Your task to perform on an android device: turn pop-ups off in chrome Image 0: 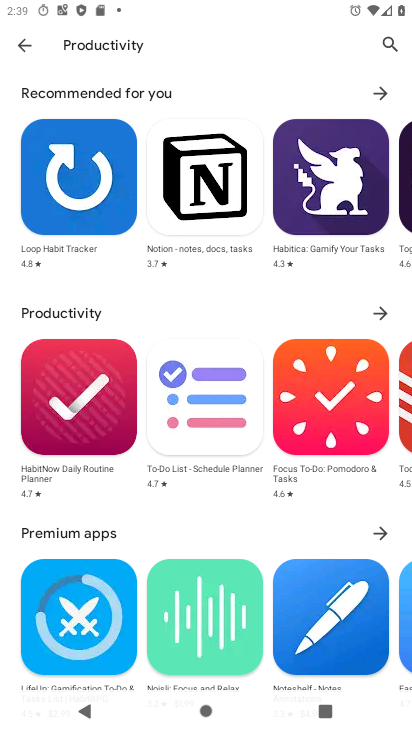
Step 0: press home button
Your task to perform on an android device: turn pop-ups off in chrome Image 1: 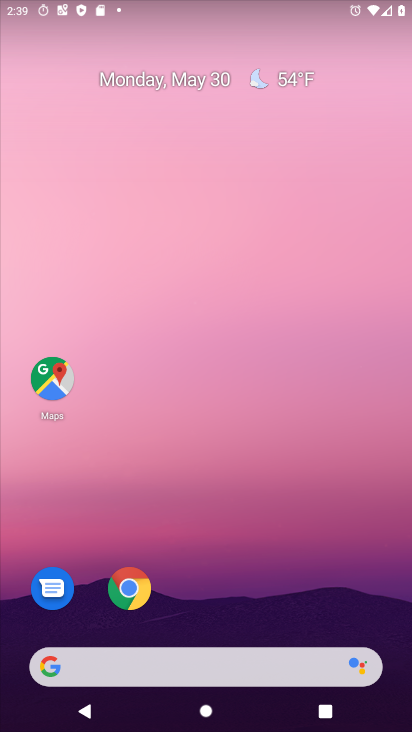
Step 1: click (130, 588)
Your task to perform on an android device: turn pop-ups off in chrome Image 2: 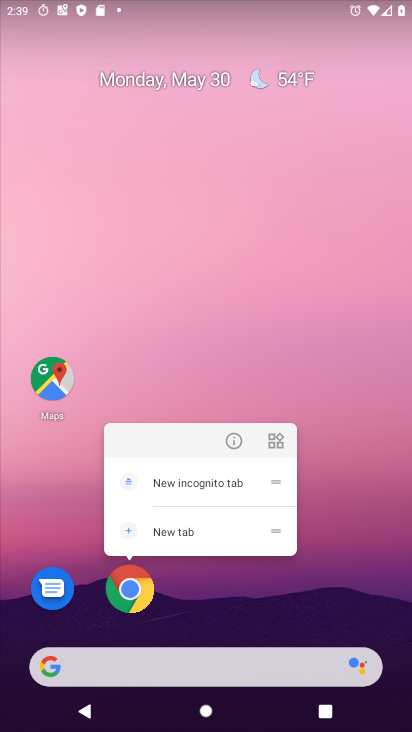
Step 2: click (130, 588)
Your task to perform on an android device: turn pop-ups off in chrome Image 3: 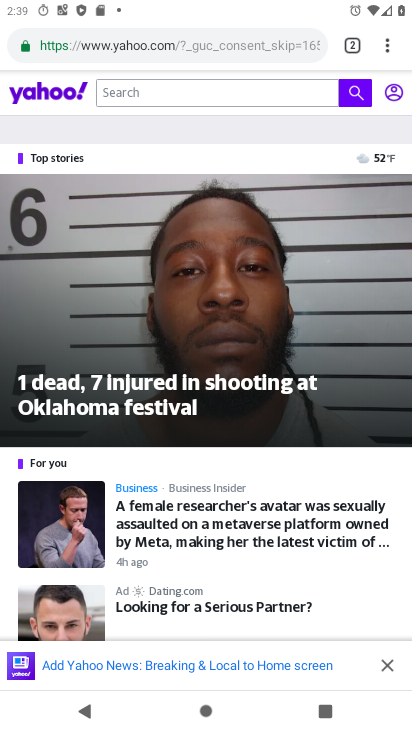
Step 3: click (390, 49)
Your task to perform on an android device: turn pop-ups off in chrome Image 4: 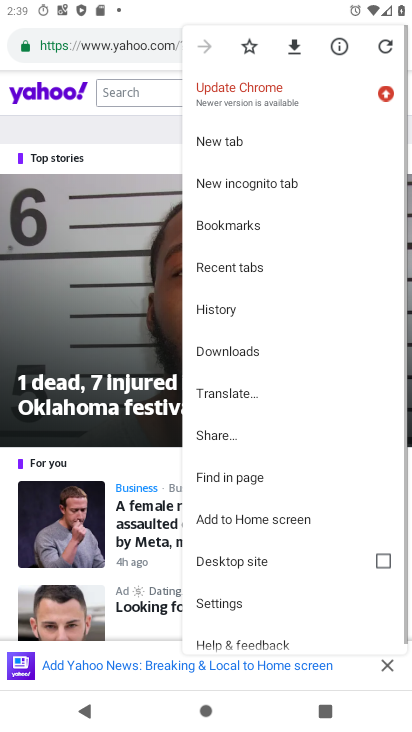
Step 4: click (223, 600)
Your task to perform on an android device: turn pop-ups off in chrome Image 5: 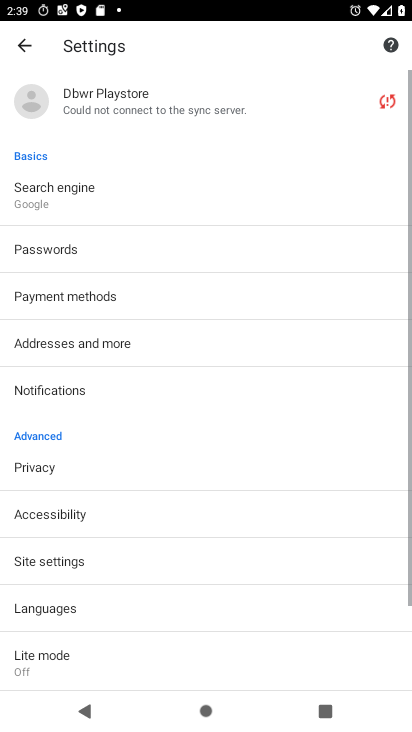
Step 5: click (50, 559)
Your task to perform on an android device: turn pop-ups off in chrome Image 6: 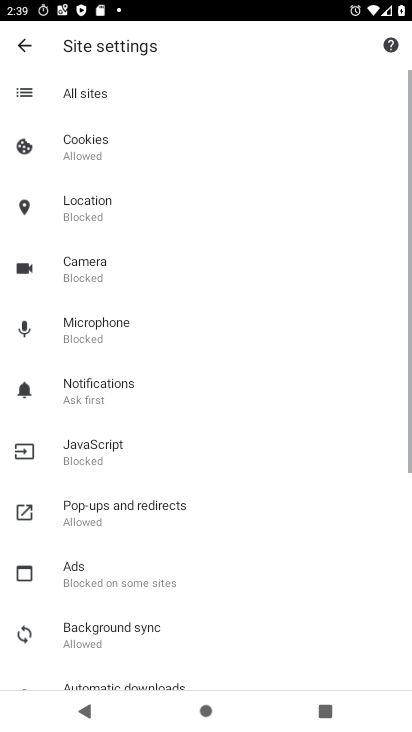
Step 6: click (139, 505)
Your task to perform on an android device: turn pop-ups off in chrome Image 7: 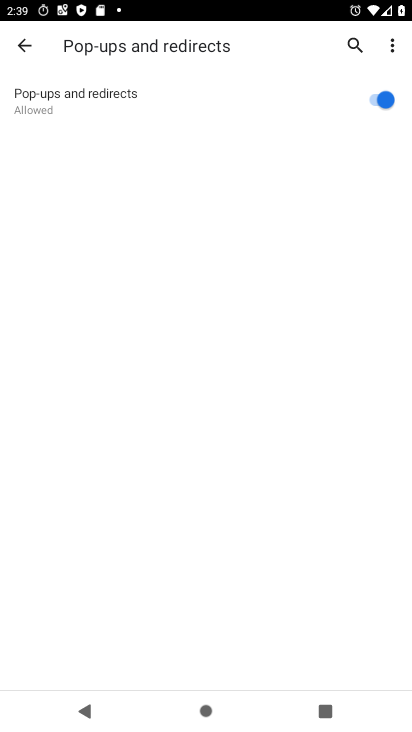
Step 7: click (393, 83)
Your task to perform on an android device: turn pop-ups off in chrome Image 8: 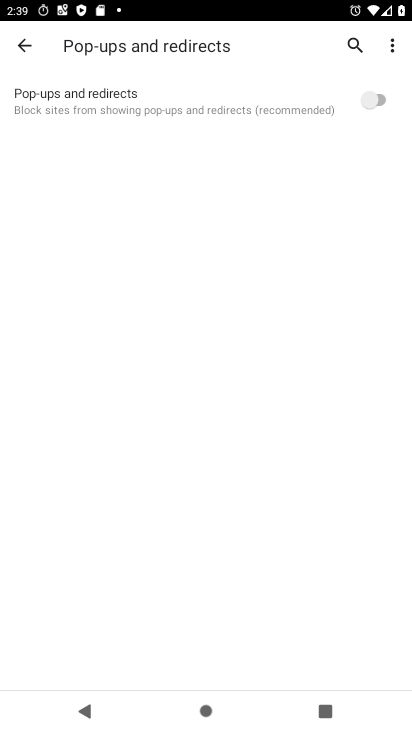
Step 8: task complete